Your task to perform on an android device: open a new tab in the chrome app Image 0: 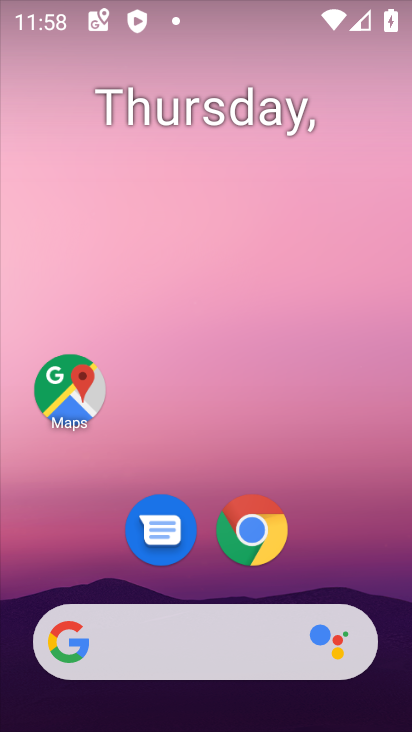
Step 0: click (253, 531)
Your task to perform on an android device: open a new tab in the chrome app Image 1: 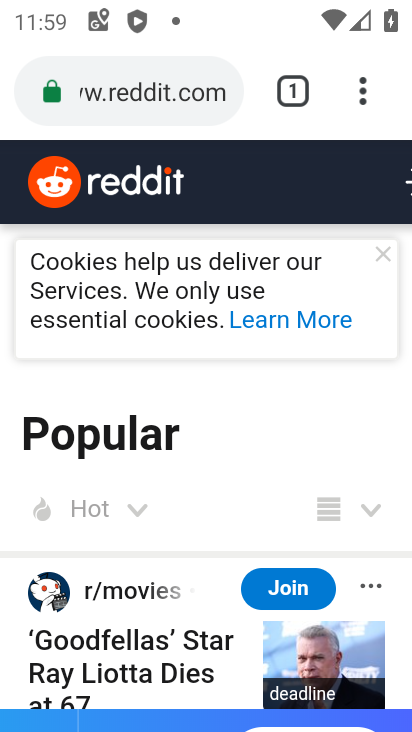
Step 1: click (360, 91)
Your task to perform on an android device: open a new tab in the chrome app Image 2: 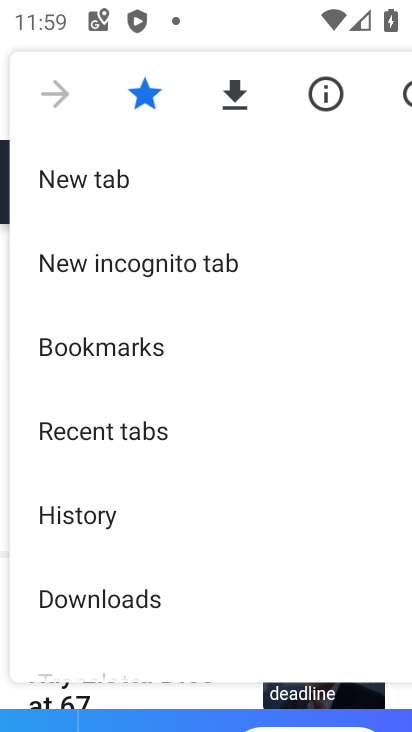
Step 2: click (129, 183)
Your task to perform on an android device: open a new tab in the chrome app Image 3: 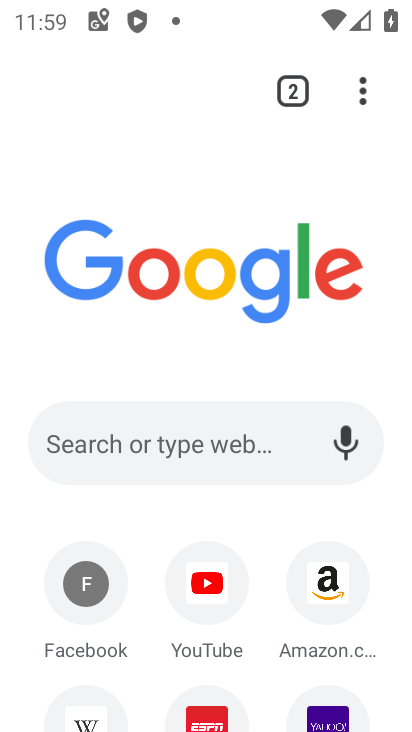
Step 3: task complete